Your task to perform on an android device: Open Yahoo.com Image 0: 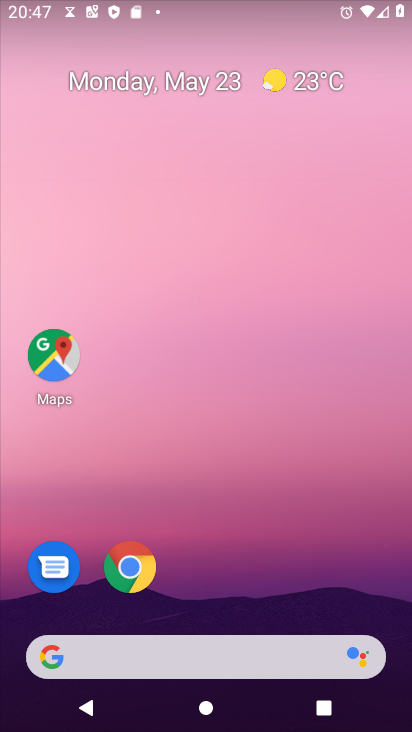
Step 0: click (131, 563)
Your task to perform on an android device: Open Yahoo.com Image 1: 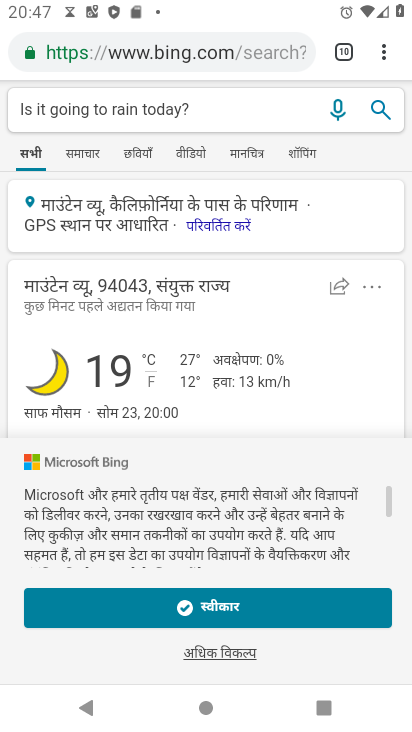
Step 1: click (376, 55)
Your task to perform on an android device: Open Yahoo.com Image 2: 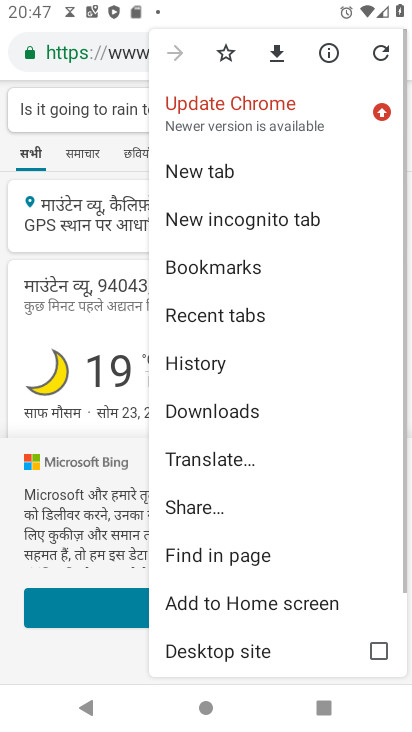
Step 2: click (210, 164)
Your task to perform on an android device: Open Yahoo.com Image 3: 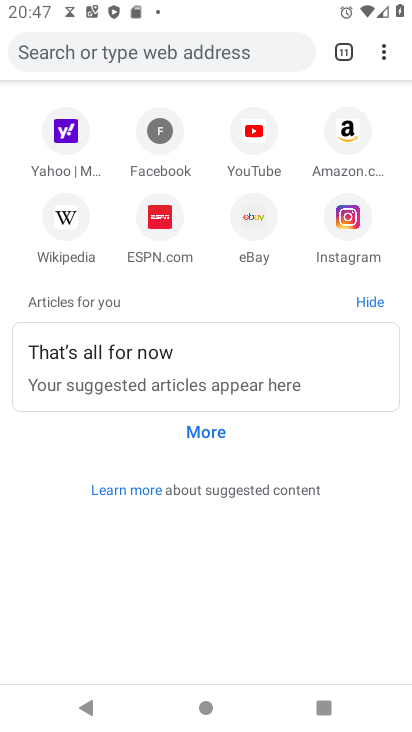
Step 3: click (78, 123)
Your task to perform on an android device: Open Yahoo.com Image 4: 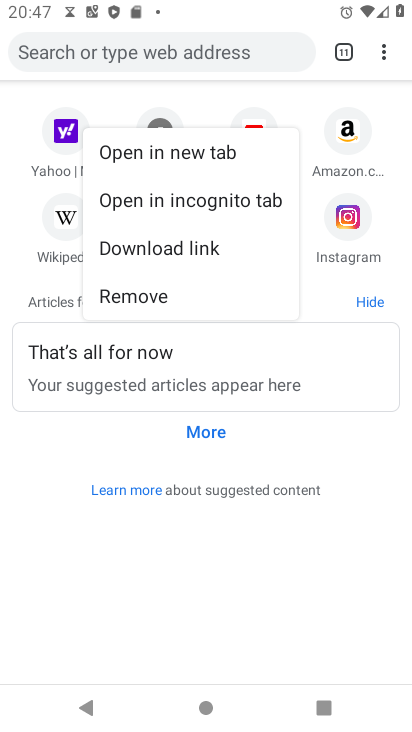
Step 4: click (58, 124)
Your task to perform on an android device: Open Yahoo.com Image 5: 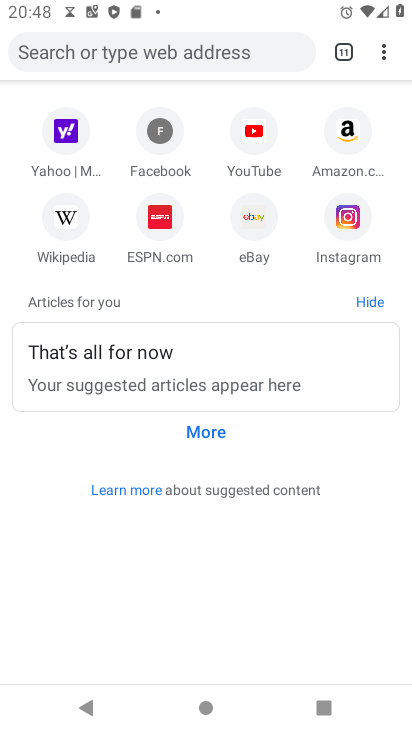
Step 5: click (57, 124)
Your task to perform on an android device: Open Yahoo.com Image 6: 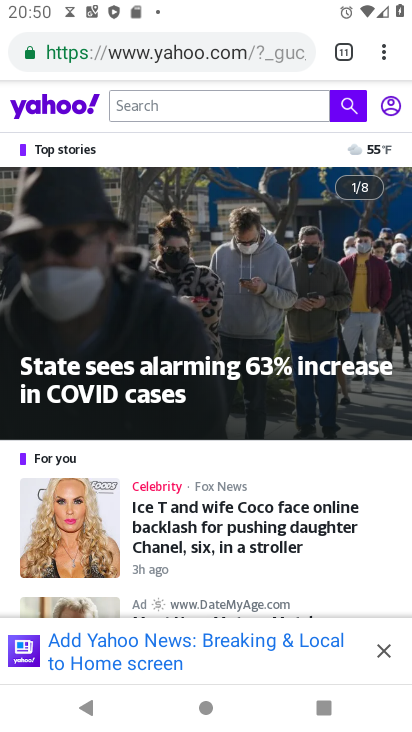
Step 6: task complete